Your task to perform on an android device: Open my contact list Image 0: 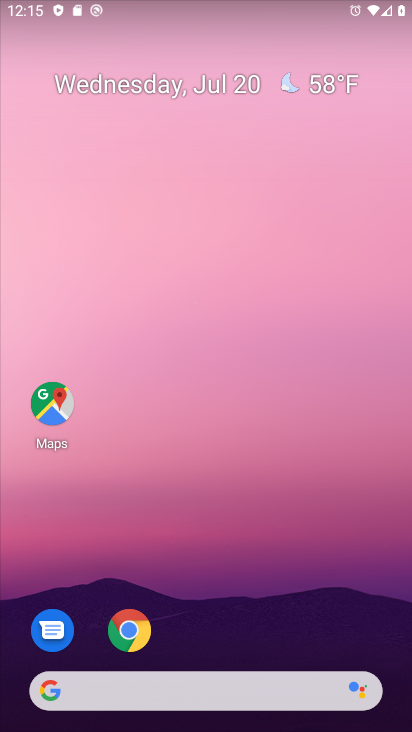
Step 0: press home button
Your task to perform on an android device: Open my contact list Image 1: 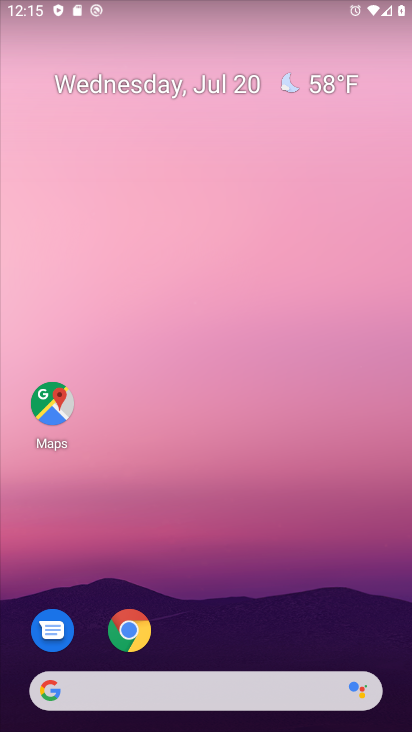
Step 1: drag from (162, 685) to (343, 34)
Your task to perform on an android device: Open my contact list Image 2: 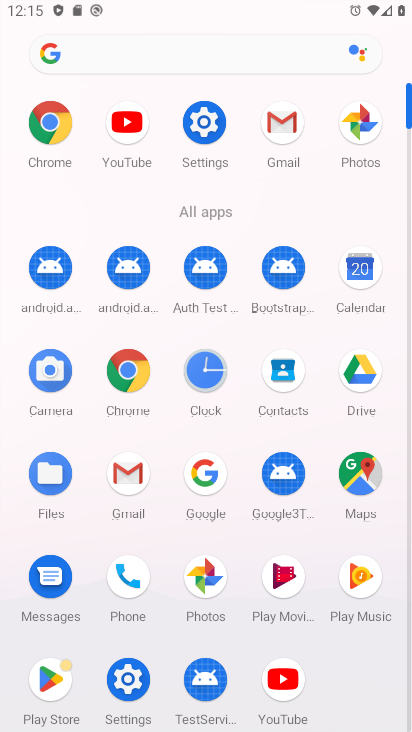
Step 2: click (283, 368)
Your task to perform on an android device: Open my contact list Image 3: 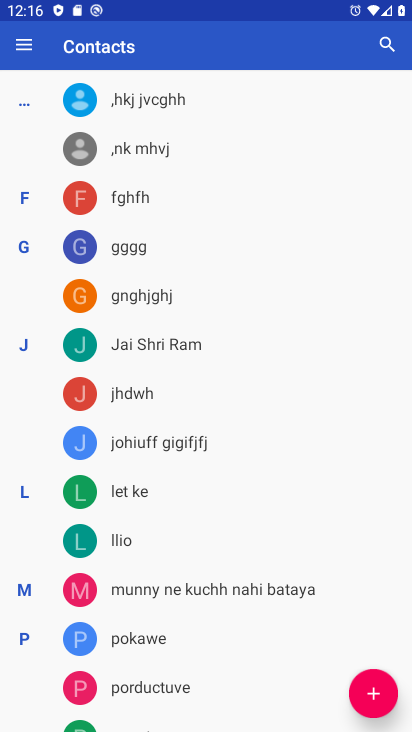
Step 3: task complete